Your task to perform on an android device: uninstall "Viber Messenger" Image 0: 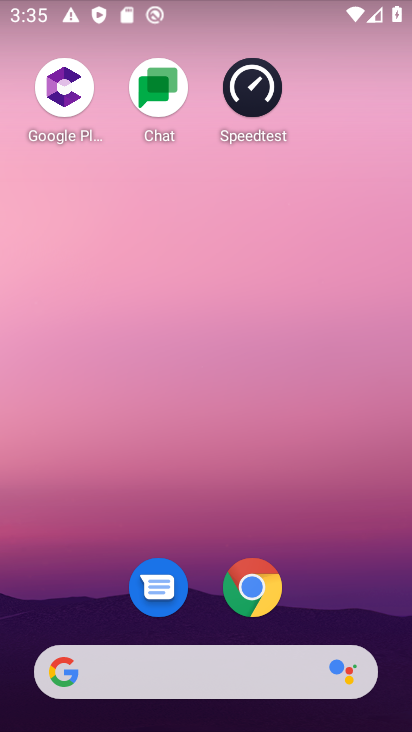
Step 0: click (331, 581)
Your task to perform on an android device: uninstall "Viber Messenger" Image 1: 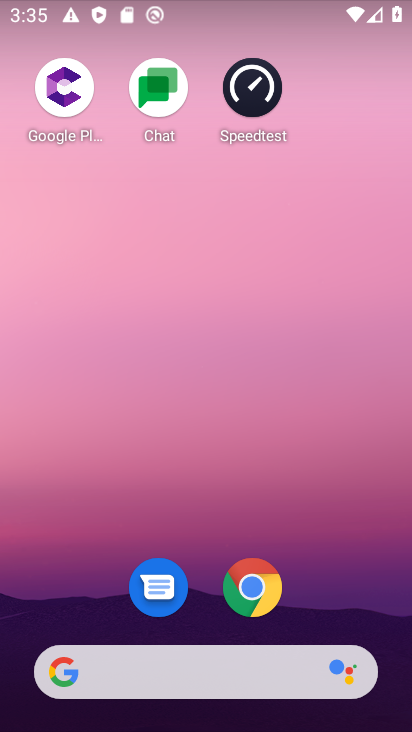
Step 1: drag from (331, 581) to (267, 128)
Your task to perform on an android device: uninstall "Viber Messenger" Image 2: 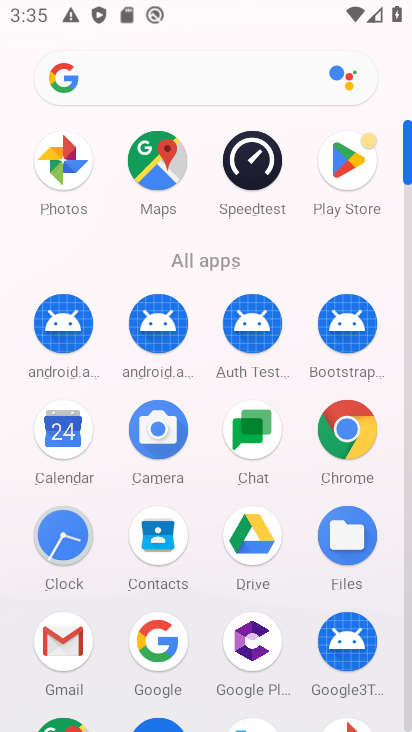
Step 2: click (360, 170)
Your task to perform on an android device: uninstall "Viber Messenger" Image 3: 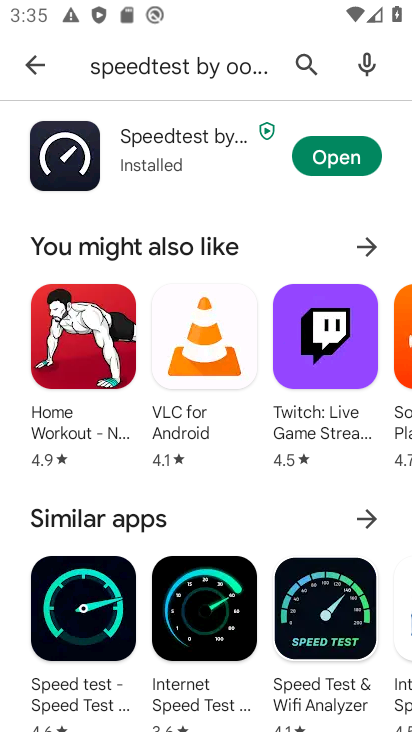
Step 3: click (291, 73)
Your task to perform on an android device: uninstall "Viber Messenger" Image 4: 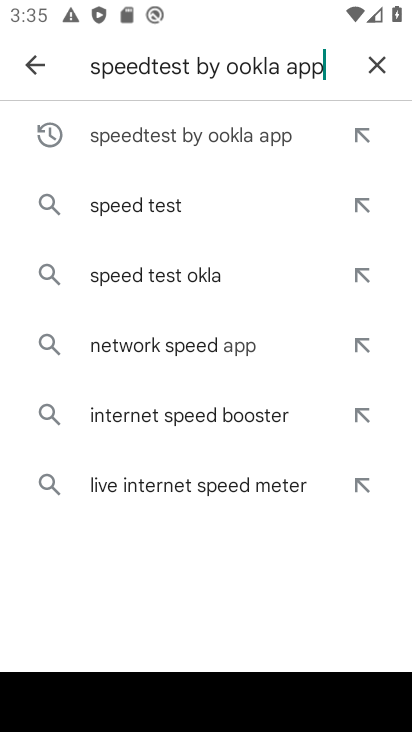
Step 4: click (377, 78)
Your task to perform on an android device: uninstall "Viber Messenger" Image 5: 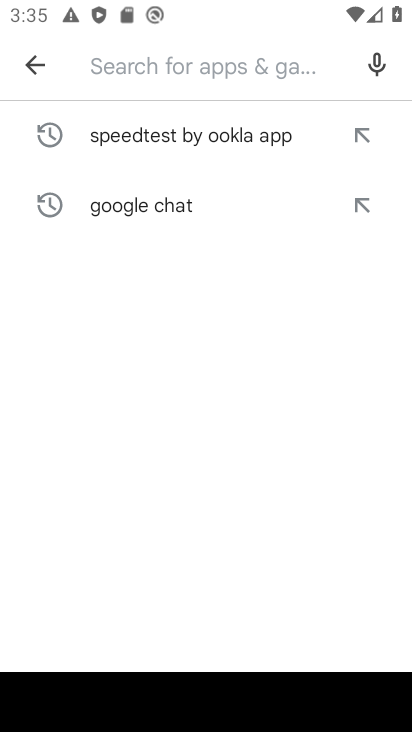
Step 5: type "Viber Messenger"
Your task to perform on an android device: uninstall "Viber Messenger" Image 6: 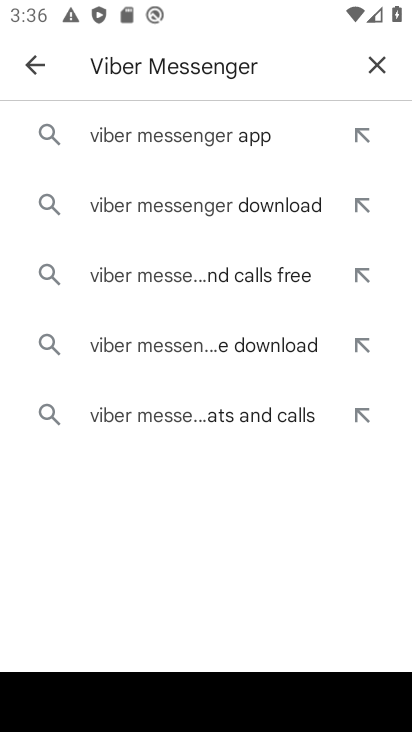
Step 6: click (326, 146)
Your task to perform on an android device: uninstall "Viber Messenger" Image 7: 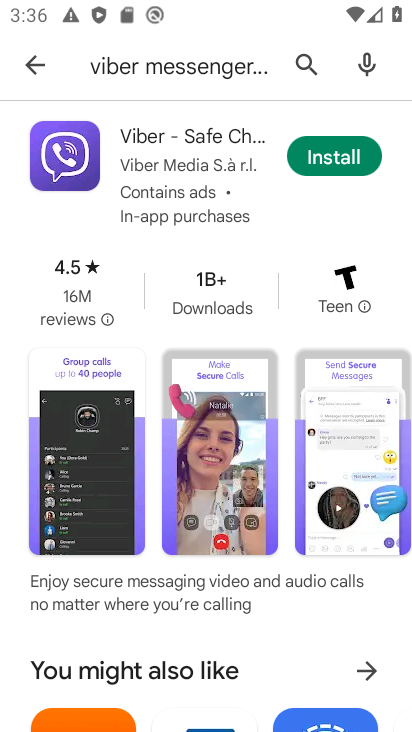
Step 7: task complete